Your task to perform on an android device: Open Google Chrome and open the bookmarks view Image 0: 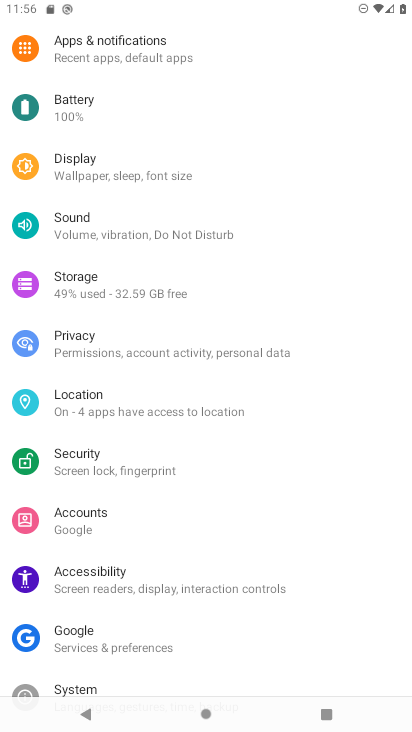
Step 0: press home button
Your task to perform on an android device: Open Google Chrome and open the bookmarks view Image 1: 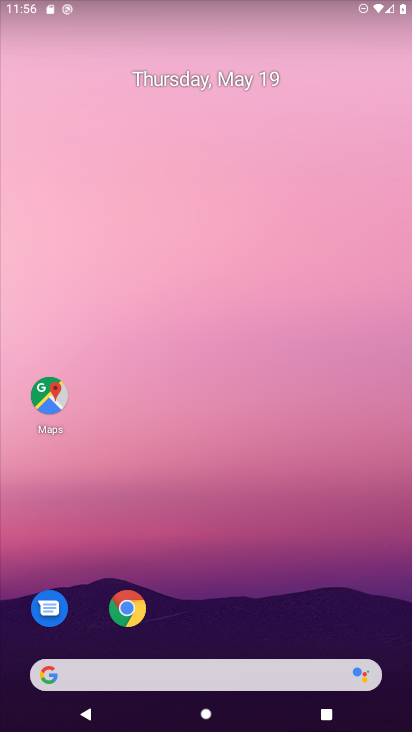
Step 1: click (130, 620)
Your task to perform on an android device: Open Google Chrome and open the bookmarks view Image 2: 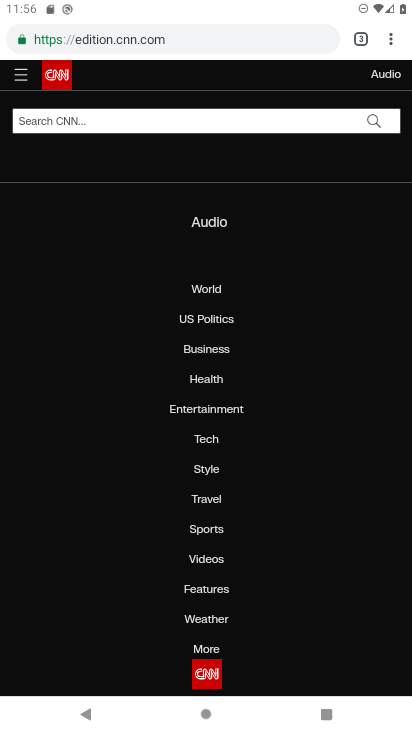
Step 2: task complete